Your task to perform on an android device: Open calendar and show me the third week of next month Image 0: 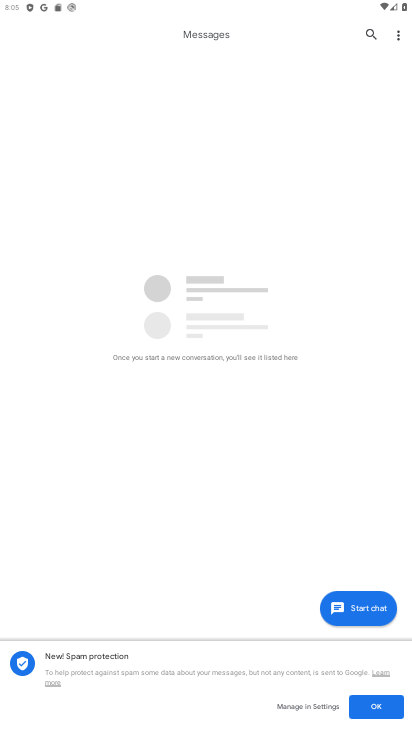
Step 0: drag from (297, 632) to (308, 244)
Your task to perform on an android device: Open calendar and show me the third week of next month Image 1: 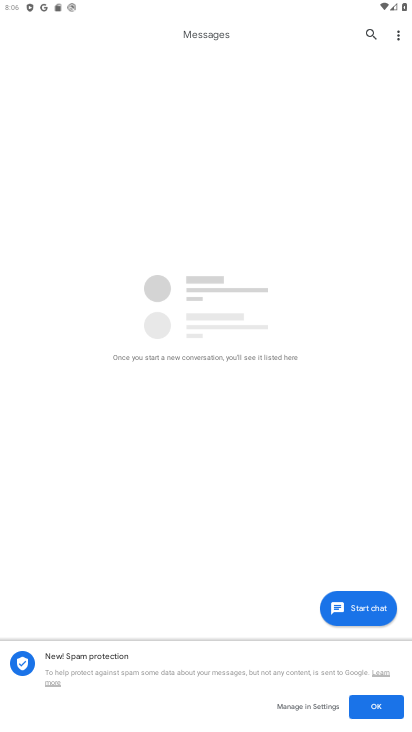
Step 1: press home button
Your task to perform on an android device: Open calendar and show me the third week of next month Image 2: 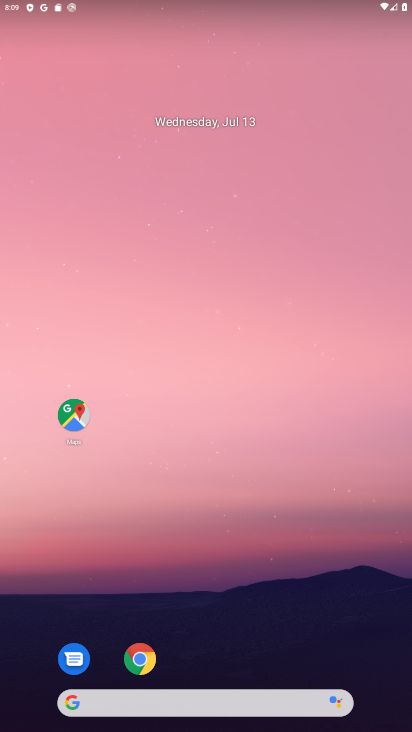
Step 2: drag from (272, 633) to (300, 82)
Your task to perform on an android device: Open calendar and show me the third week of next month Image 3: 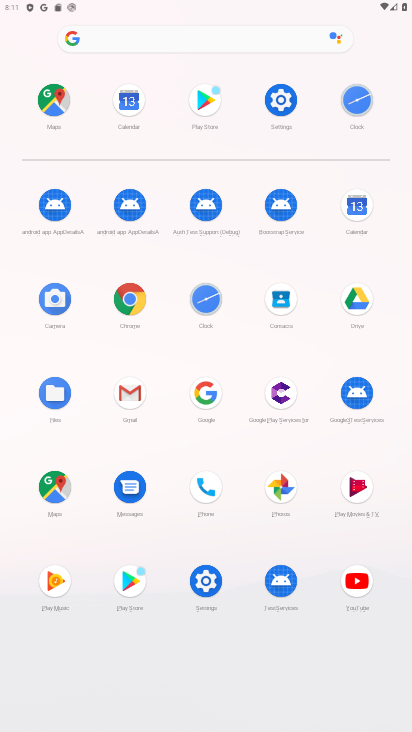
Step 3: click (123, 99)
Your task to perform on an android device: Open calendar and show me the third week of next month Image 4: 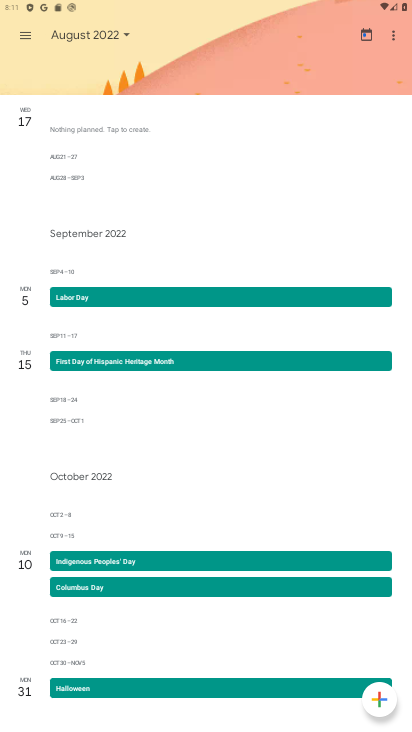
Step 4: task complete